Your task to perform on an android device: Search for sushi restaurants on Maps Image 0: 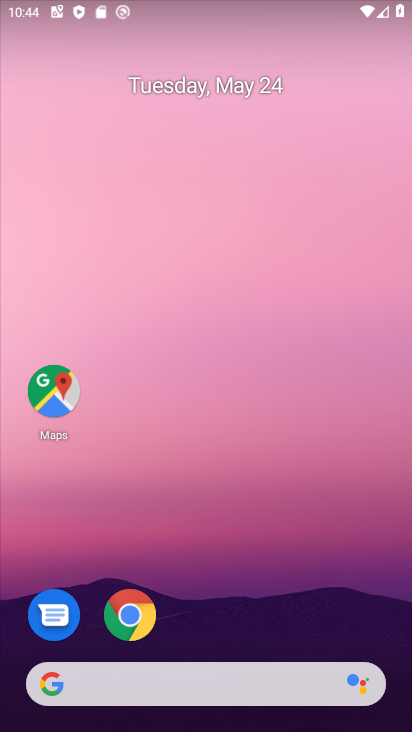
Step 0: click (55, 407)
Your task to perform on an android device: Search for sushi restaurants on Maps Image 1: 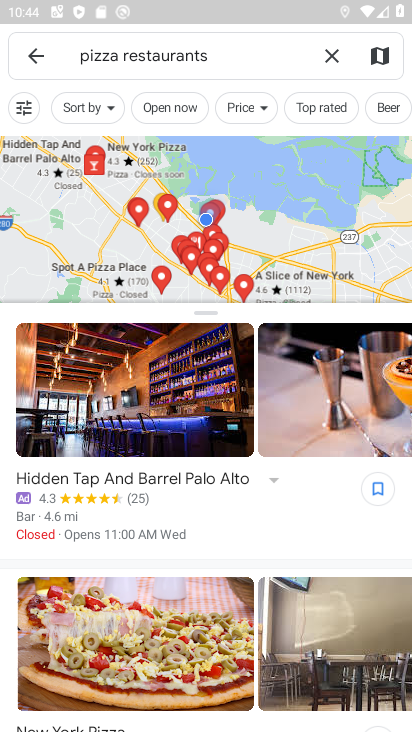
Step 1: click (337, 45)
Your task to perform on an android device: Search for sushi restaurants on Maps Image 2: 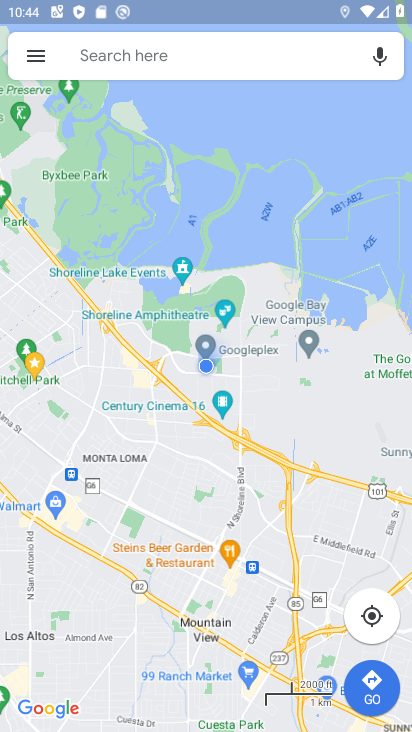
Step 2: click (214, 63)
Your task to perform on an android device: Search for sushi restaurants on Maps Image 3: 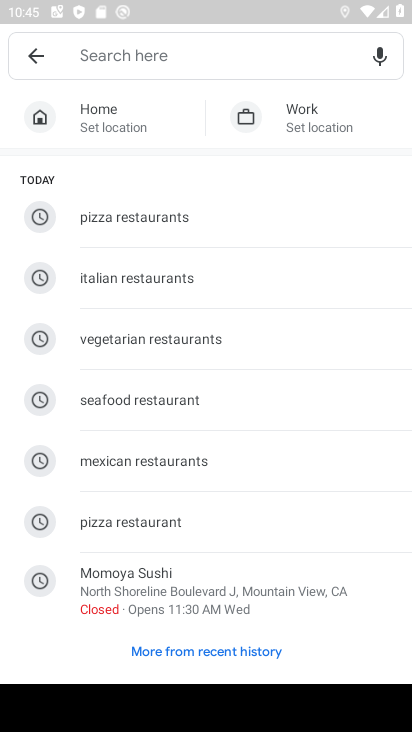
Step 3: type "sushi restaurant"
Your task to perform on an android device: Search for sushi restaurants on Maps Image 4: 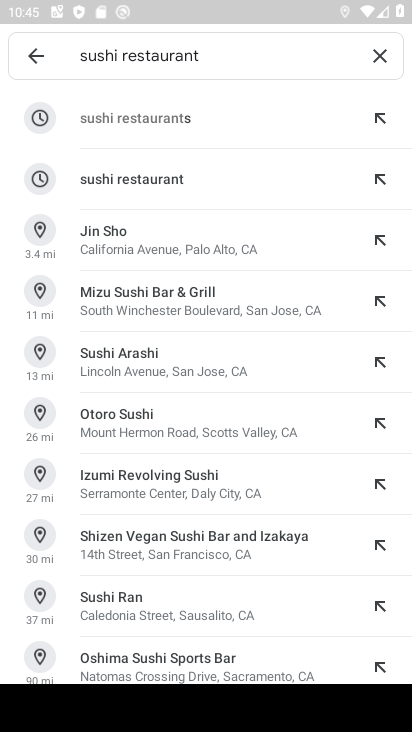
Step 4: click (258, 122)
Your task to perform on an android device: Search for sushi restaurants on Maps Image 5: 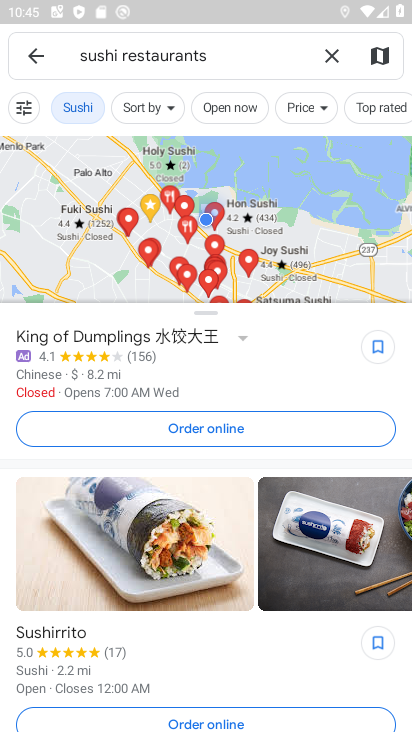
Step 5: task complete